Your task to perform on an android device: add a label to a message in the gmail app Image 0: 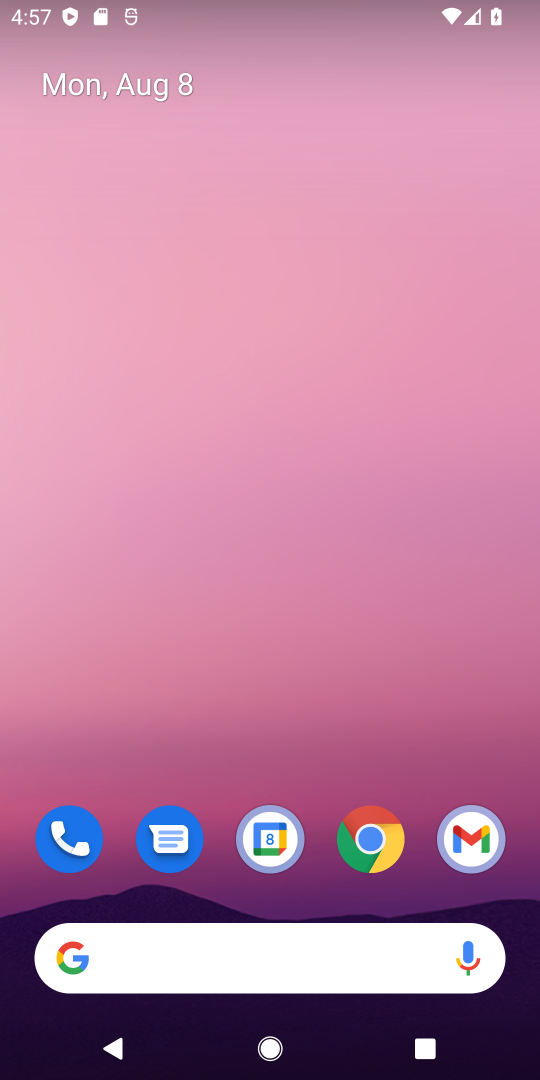
Step 0: drag from (242, 869) to (311, 4)
Your task to perform on an android device: add a label to a message in the gmail app Image 1: 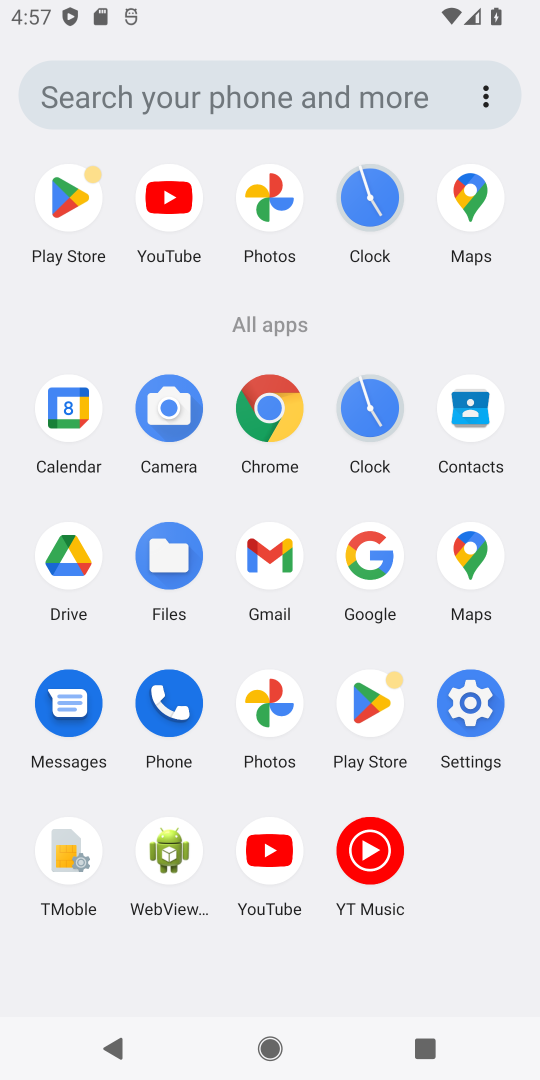
Step 1: click (273, 565)
Your task to perform on an android device: add a label to a message in the gmail app Image 2: 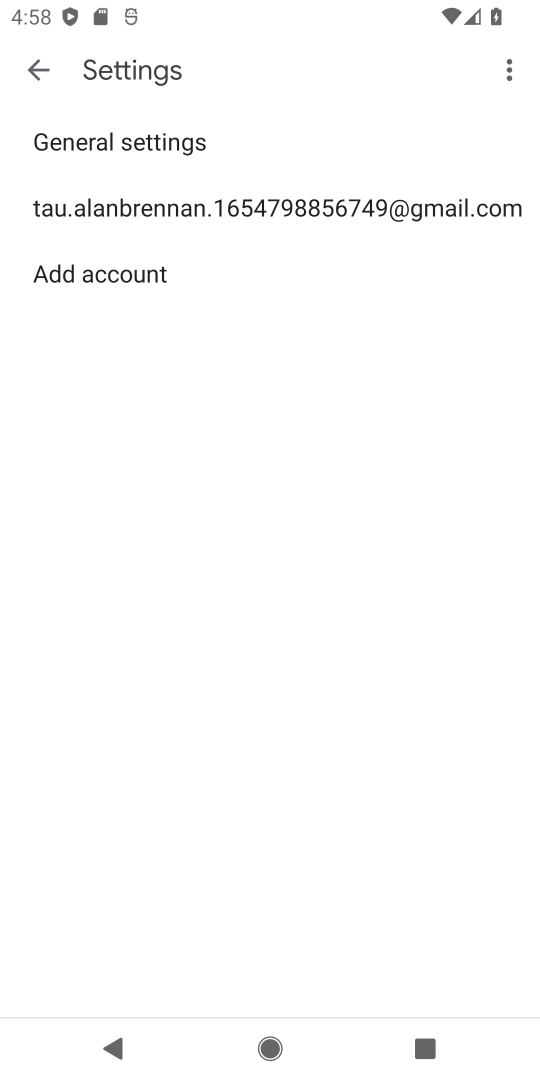
Step 2: click (31, 61)
Your task to perform on an android device: add a label to a message in the gmail app Image 3: 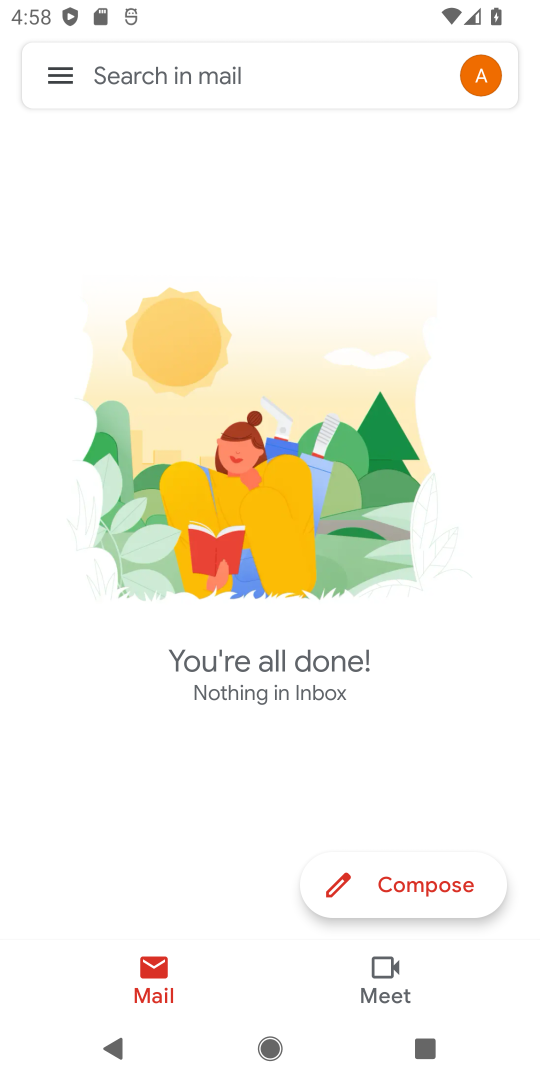
Step 3: task complete